Your task to perform on an android device: Toggle the flashlight Image 0: 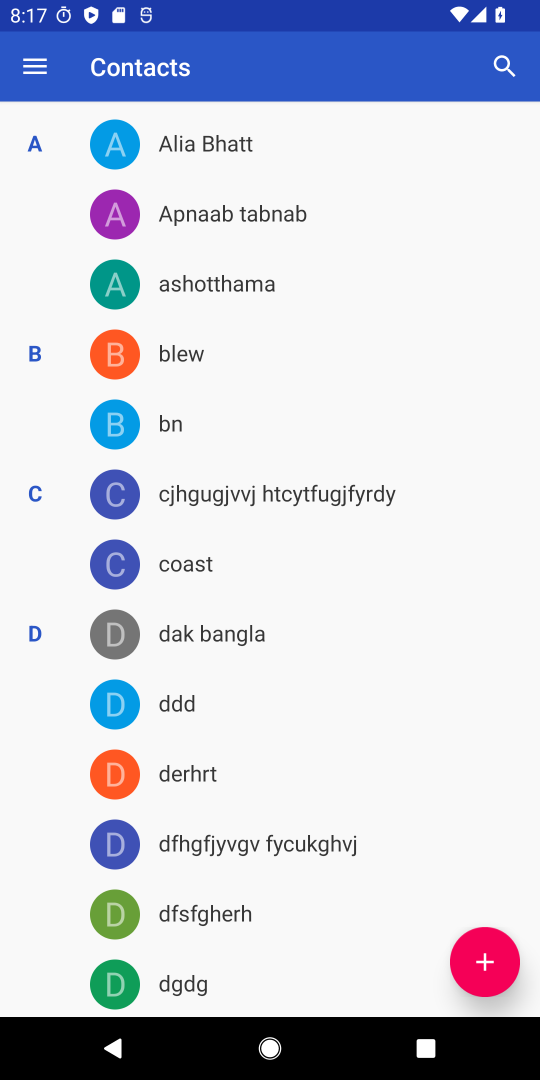
Step 0: press home button
Your task to perform on an android device: Toggle the flashlight Image 1: 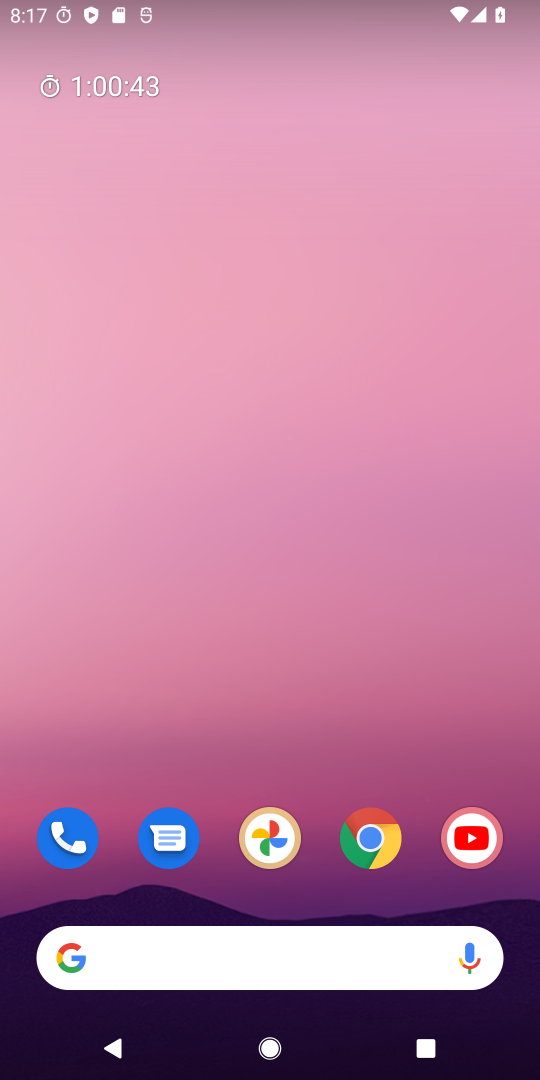
Step 1: task complete